Your task to perform on an android device: install app "Pluto TV - Live TV and Movies" Image 0: 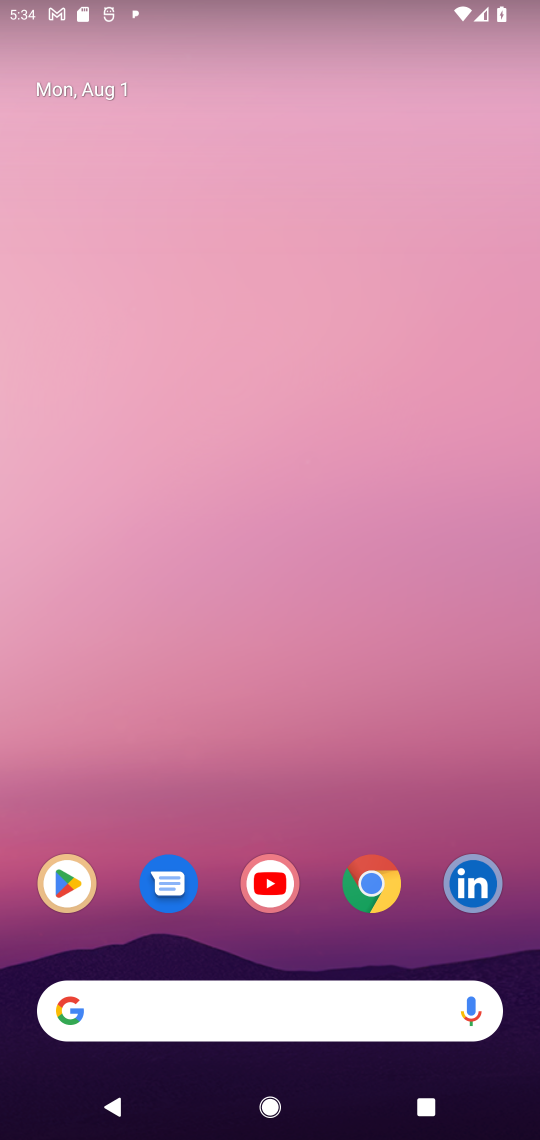
Step 0: click (73, 887)
Your task to perform on an android device: install app "Pluto TV - Live TV and Movies" Image 1: 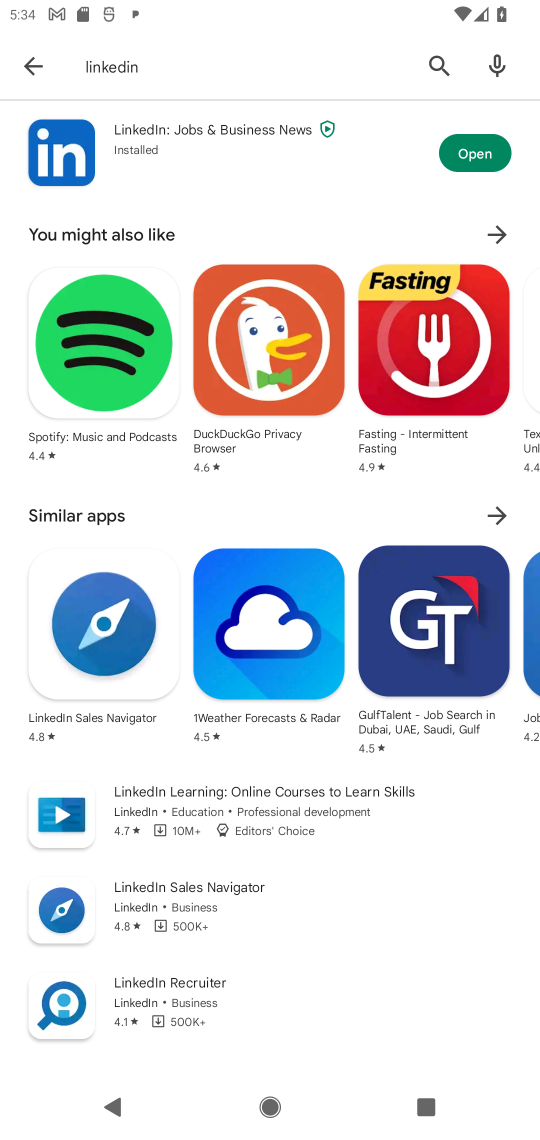
Step 1: click (30, 69)
Your task to perform on an android device: install app "Pluto TV - Live TV and Movies" Image 2: 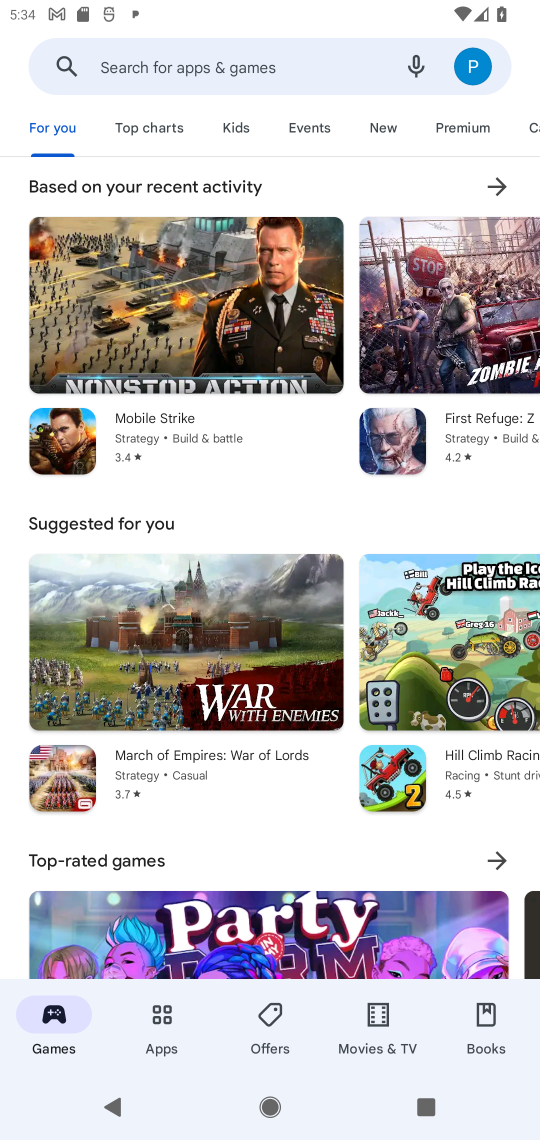
Step 2: click (234, 69)
Your task to perform on an android device: install app "Pluto TV - Live TV and Movies" Image 3: 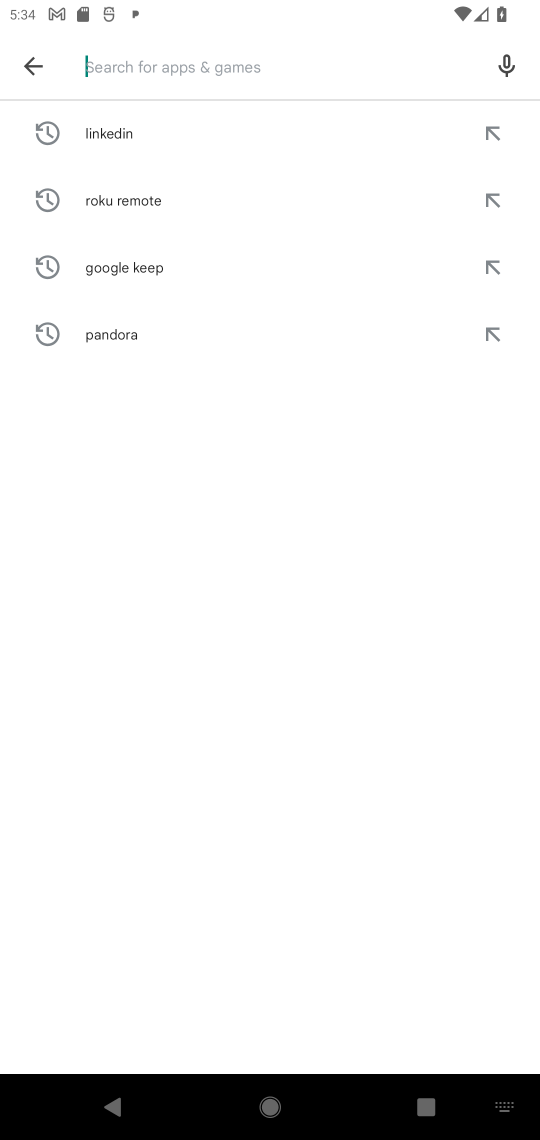
Step 3: type "Pluto TV - Live TV and Movies"
Your task to perform on an android device: install app "Pluto TV - Live TV and Movies" Image 4: 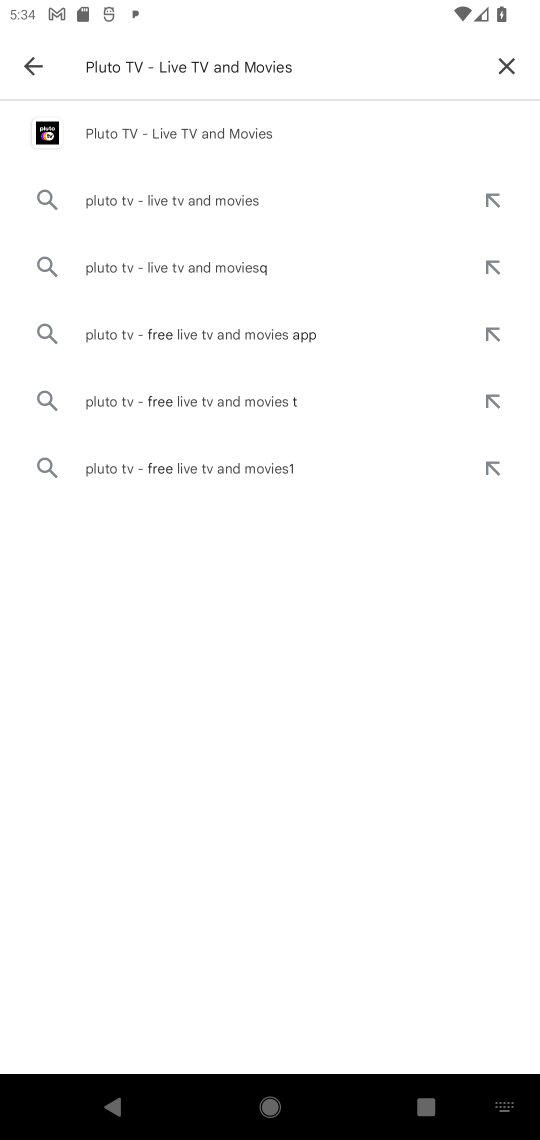
Step 4: click (222, 133)
Your task to perform on an android device: install app "Pluto TV - Live TV and Movies" Image 5: 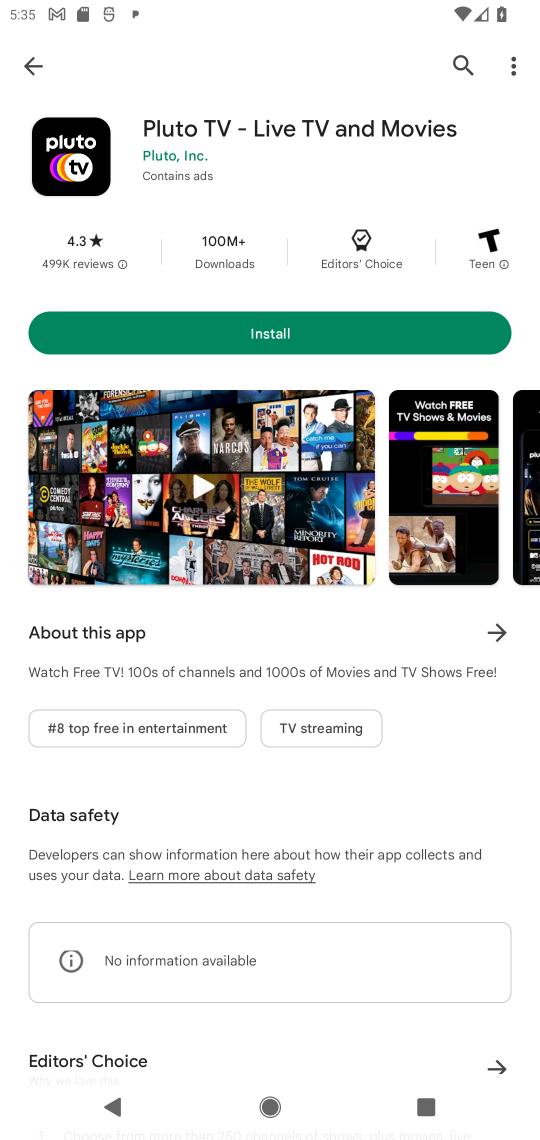
Step 5: click (274, 333)
Your task to perform on an android device: install app "Pluto TV - Live TV and Movies" Image 6: 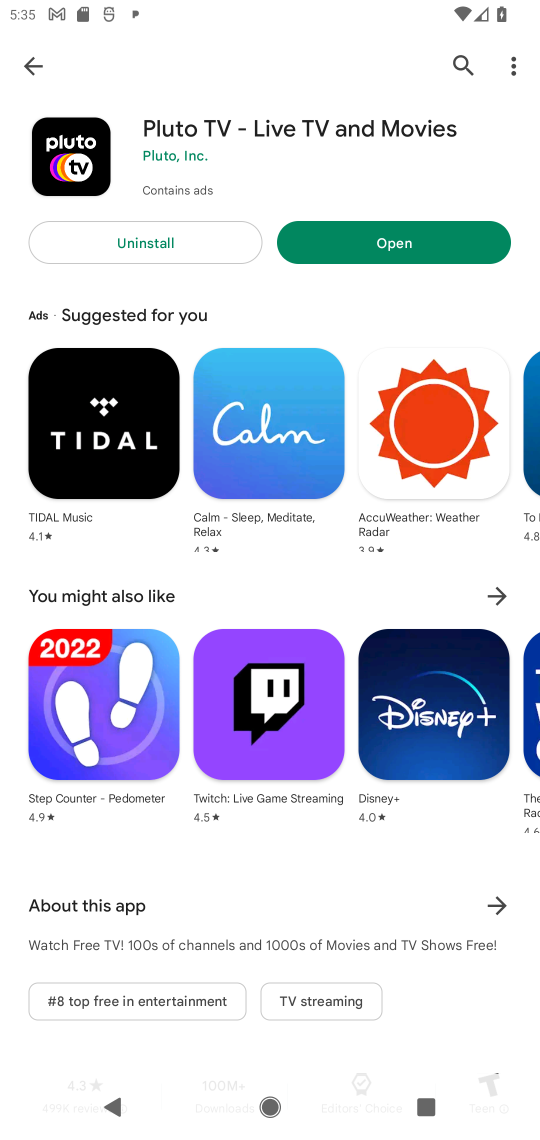
Step 6: task complete